Your task to perform on an android device: Go to internet settings Image 0: 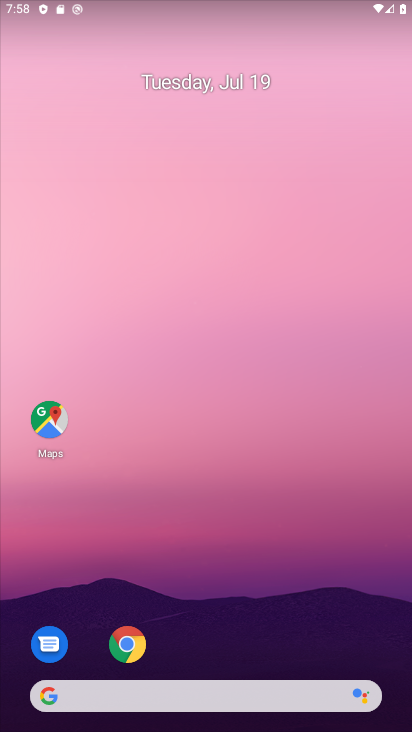
Step 0: drag from (264, 615) to (264, 137)
Your task to perform on an android device: Go to internet settings Image 1: 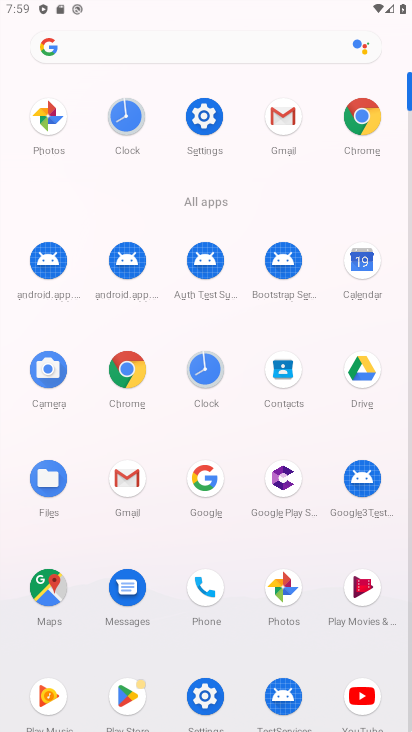
Step 1: click (200, 114)
Your task to perform on an android device: Go to internet settings Image 2: 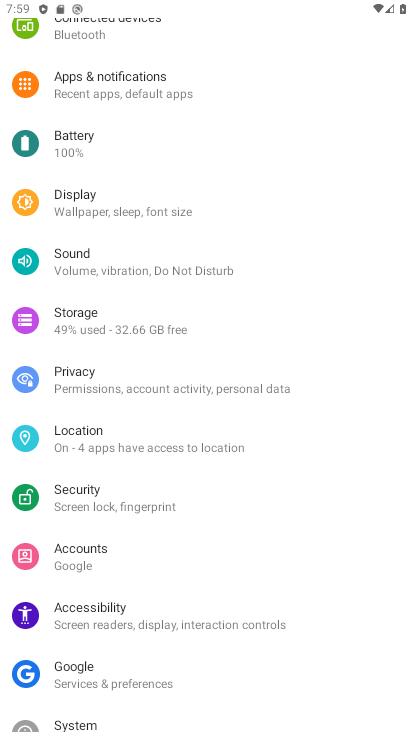
Step 2: drag from (109, 85) to (141, 264)
Your task to perform on an android device: Go to internet settings Image 3: 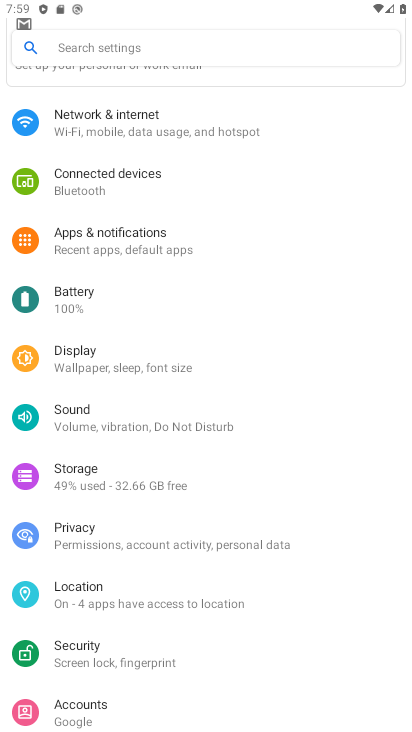
Step 3: click (201, 118)
Your task to perform on an android device: Go to internet settings Image 4: 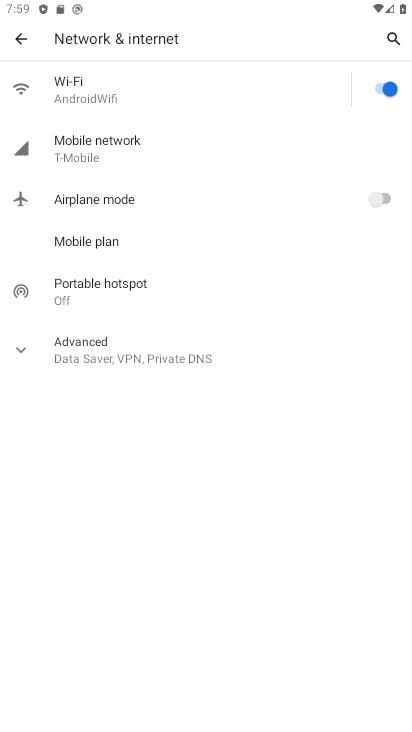
Step 4: click (170, 138)
Your task to perform on an android device: Go to internet settings Image 5: 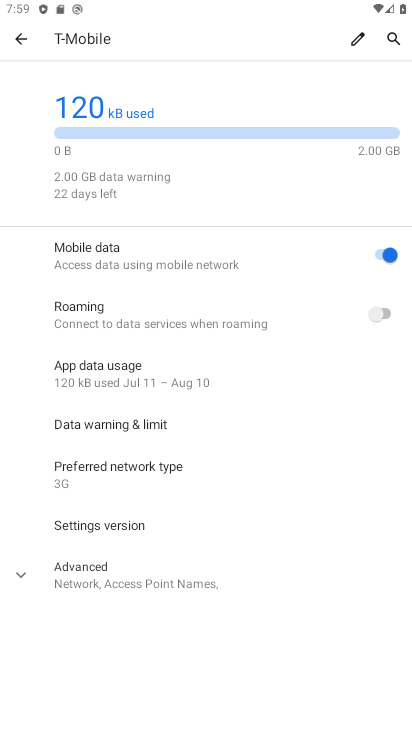
Step 5: task complete